Your task to perform on an android device: Go to CNN.com Image 0: 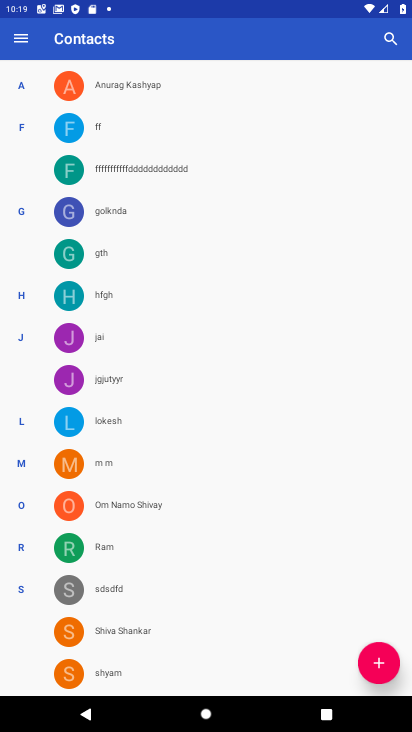
Step 0: press home button
Your task to perform on an android device: Go to CNN.com Image 1: 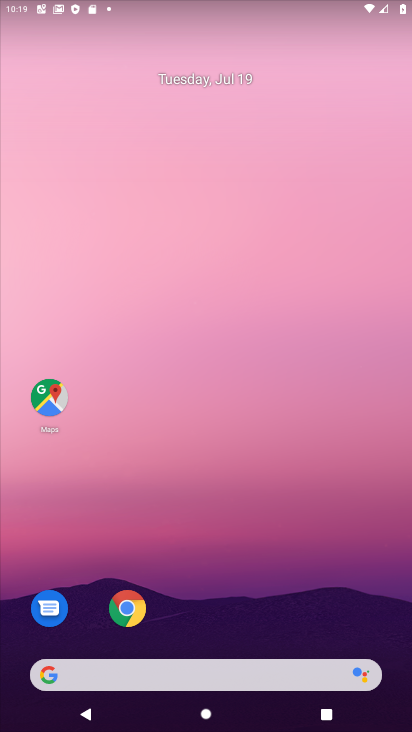
Step 1: drag from (282, 615) to (238, 132)
Your task to perform on an android device: Go to CNN.com Image 2: 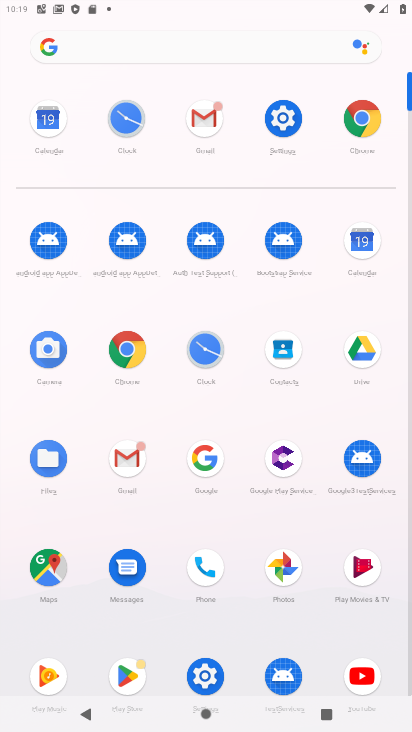
Step 2: click (358, 123)
Your task to perform on an android device: Go to CNN.com Image 3: 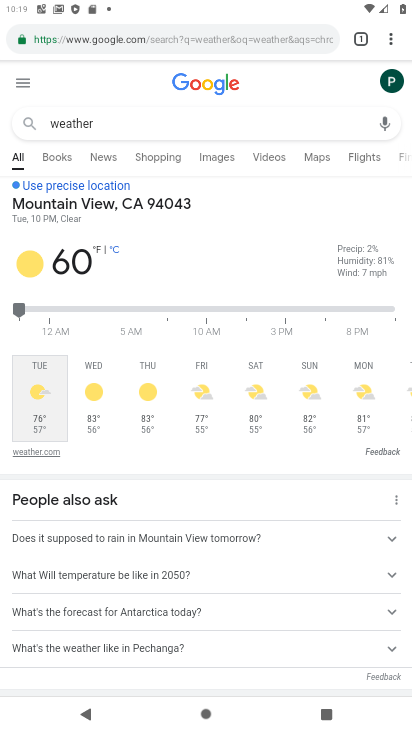
Step 3: click (221, 36)
Your task to perform on an android device: Go to CNN.com Image 4: 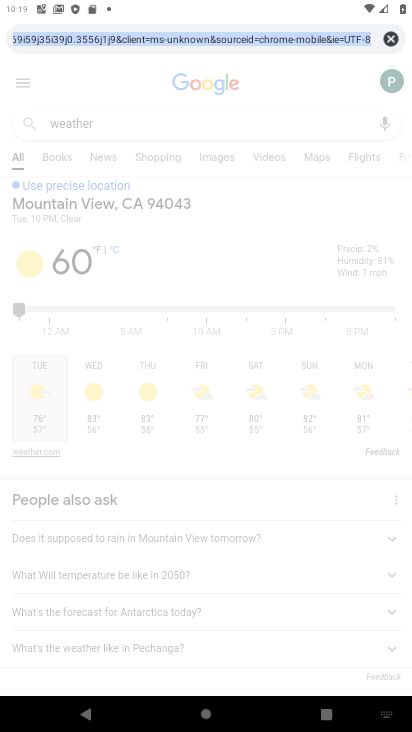
Step 4: type "cnn.com"
Your task to perform on an android device: Go to CNN.com Image 5: 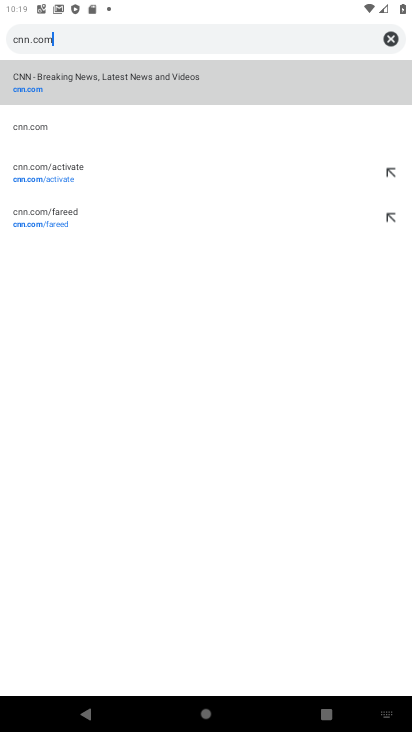
Step 5: click (47, 85)
Your task to perform on an android device: Go to CNN.com Image 6: 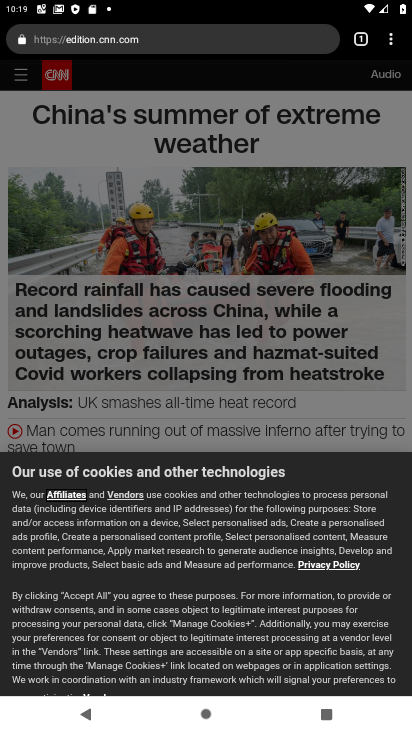
Step 6: task complete